Your task to perform on an android device: search for starred emails in the gmail app Image 0: 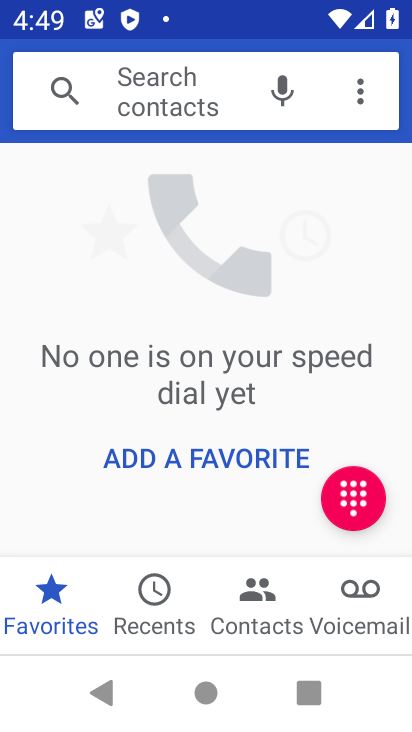
Step 0: press home button
Your task to perform on an android device: search for starred emails in the gmail app Image 1: 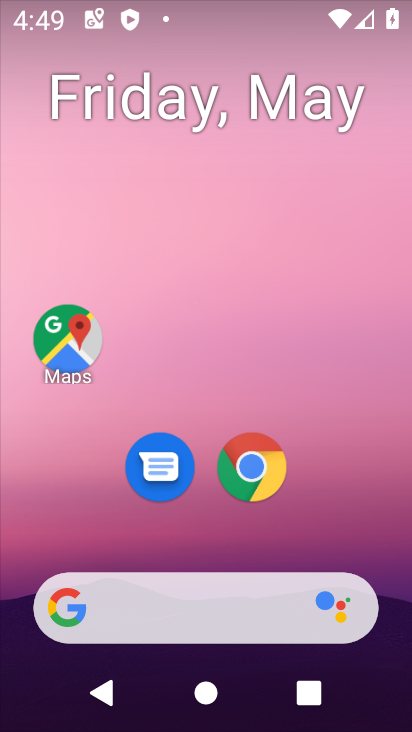
Step 1: drag from (302, 524) to (302, 75)
Your task to perform on an android device: search for starred emails in the gmail app Image 2: 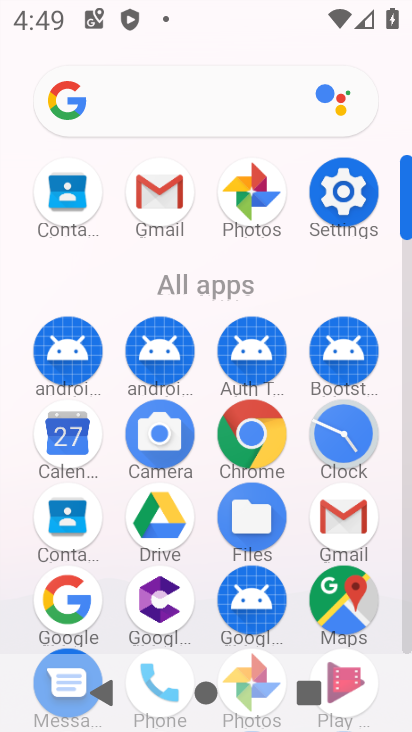
Step 2: click (157, 180)
Your task to perform on an android device: search for starred emails in the gmail app Image 3: 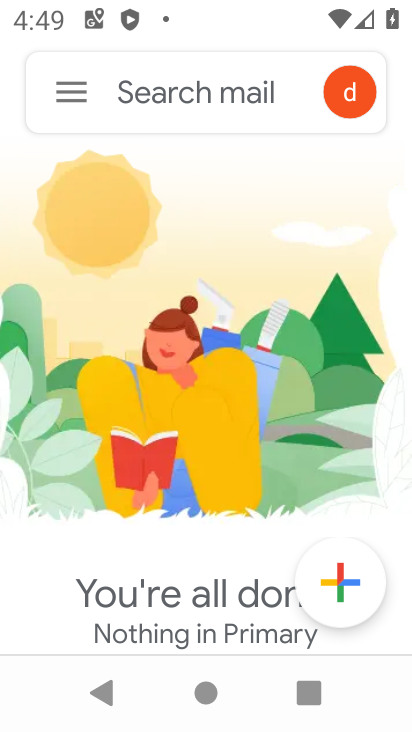
Step 3: click (85, 89)
Your task to perform on an android device: search for starred emails in the gmail app Image 4: 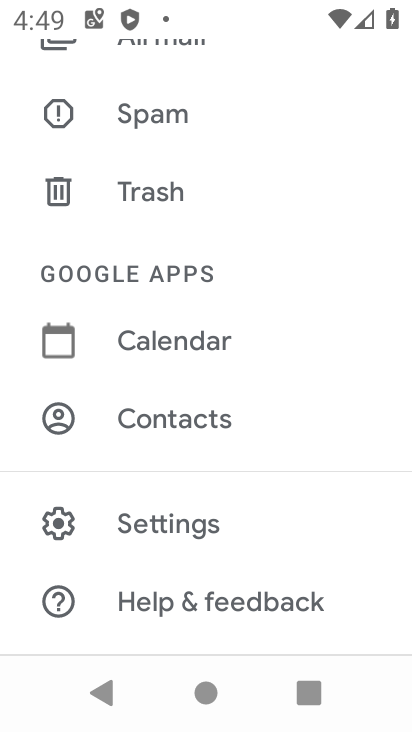
Step 4: drag from (286, 168) to (279, 601)
Your task to perform on an android device: search for starred emails in the gmail app Image 5: 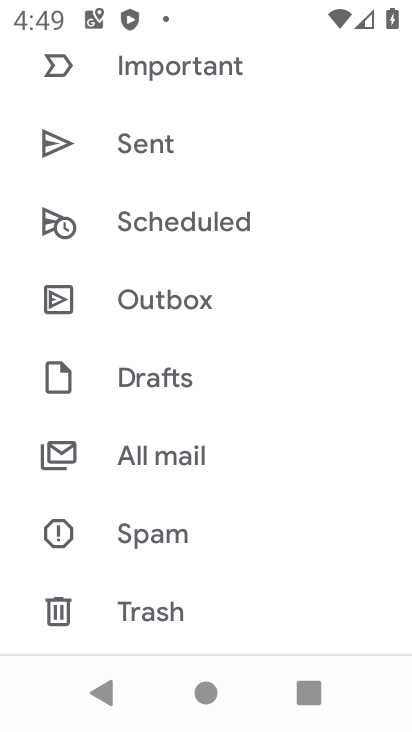
Step 5: drag from (283, 140) to (226, 531)
Your task to perform on an android device: search for starred emails in the gmail app Image 6: 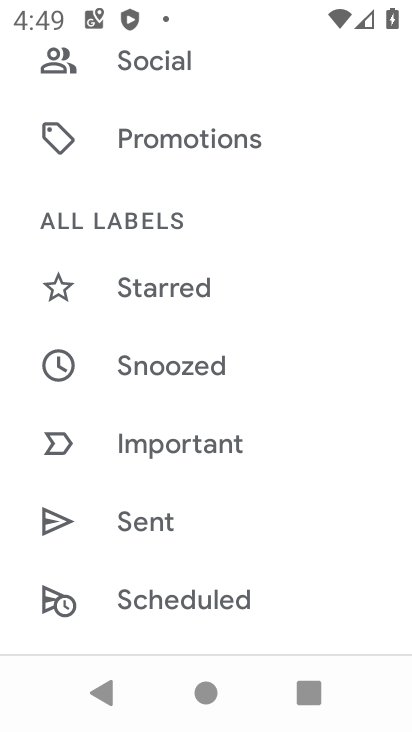
Step 6: click (177, 287)
Your task to perform on an android device: search for starred emails in the gmail app Image 7: 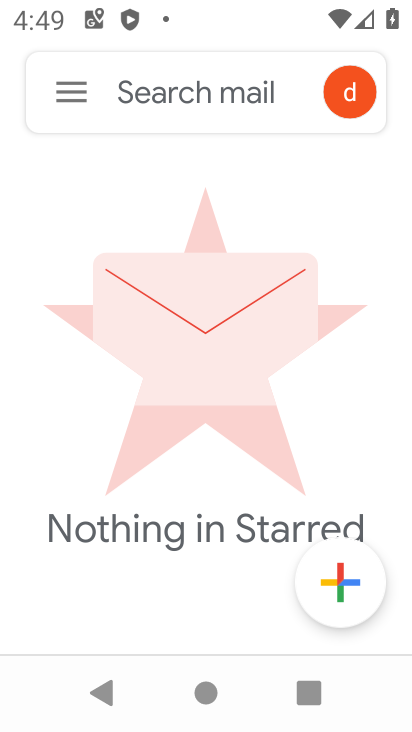
Step 7: task complete